Your task to perform on an android device: all mails in gmail Image 0: 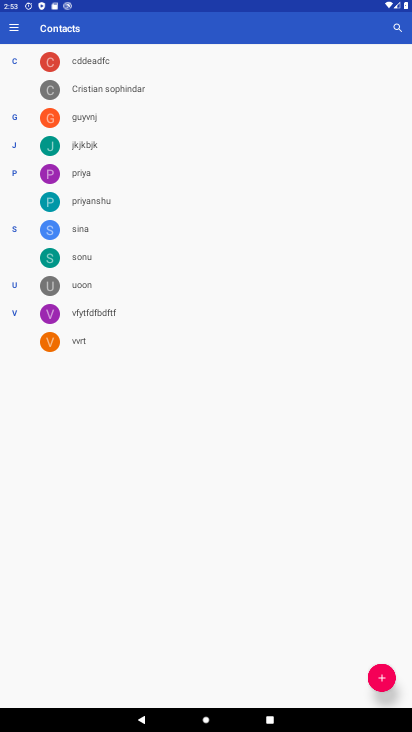
Step 0: press home button
Your task to perform on an android device: all mails in gmail Image 1: 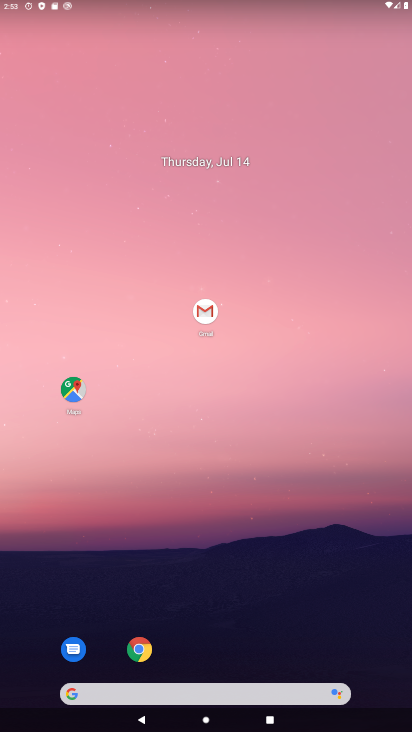
Step 1: click (206, 313)
Your task to perform on an android device: all mails in gmail Image 2: 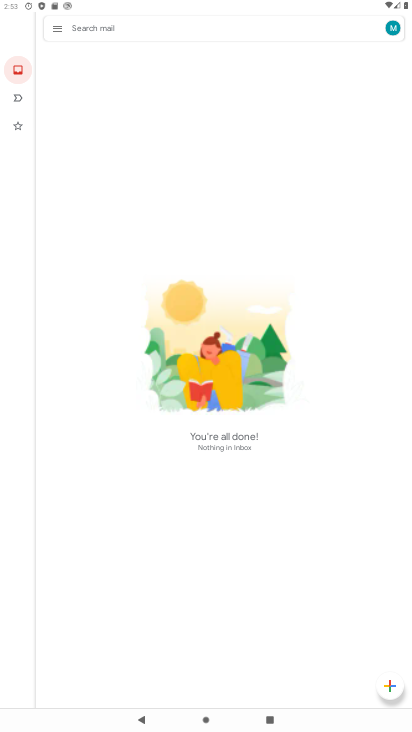
Step 2: click (56, 28)
Your task to perform on an android device: all mails in gmail Image 3: 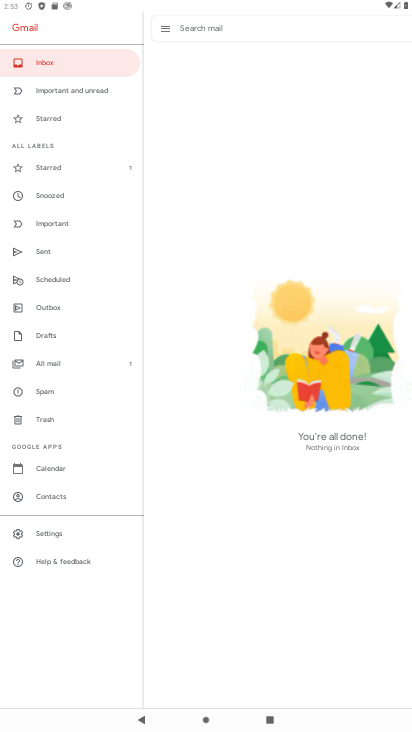
Step 3: click (68, 360)
Your task to perform on an android device: all mails in gmail Image 4: 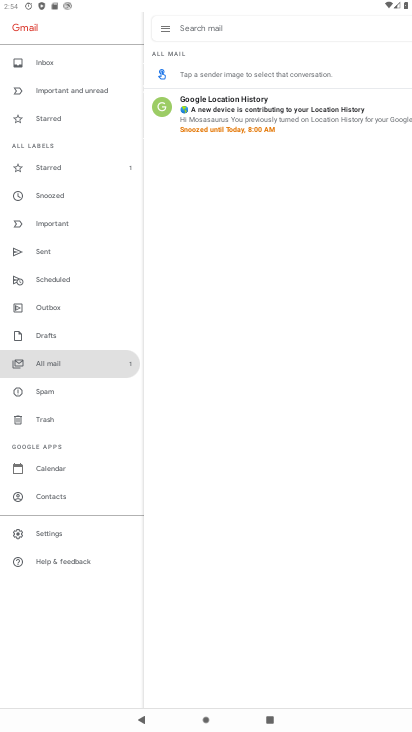
Step 4: task complete